Your task to perform on an android device: toggle improve location accuracy Image 0: 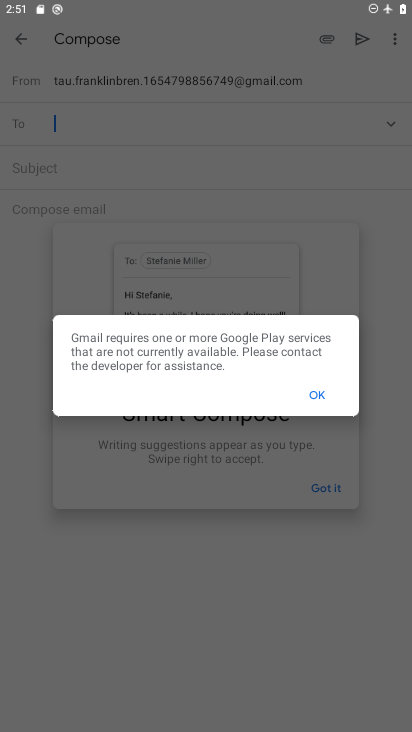
Step 0: press home button
Your task to perform on an android device: toggle improve location accuracy Image 1: 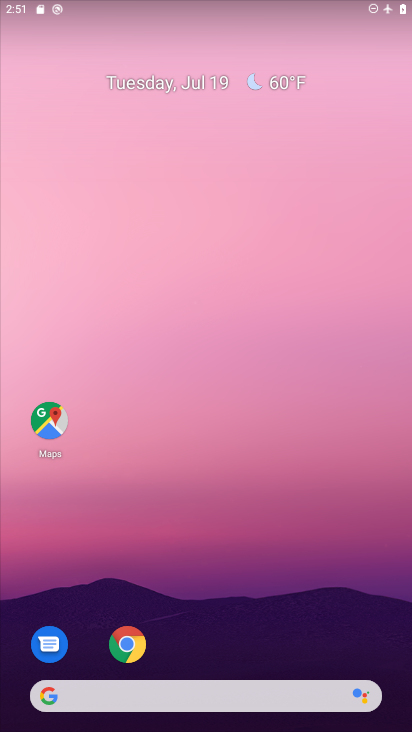
Step 1: drag from (176, 669) to (136, 58)
Your task to perform on an android device: toggle improve location accuracy Image 2: 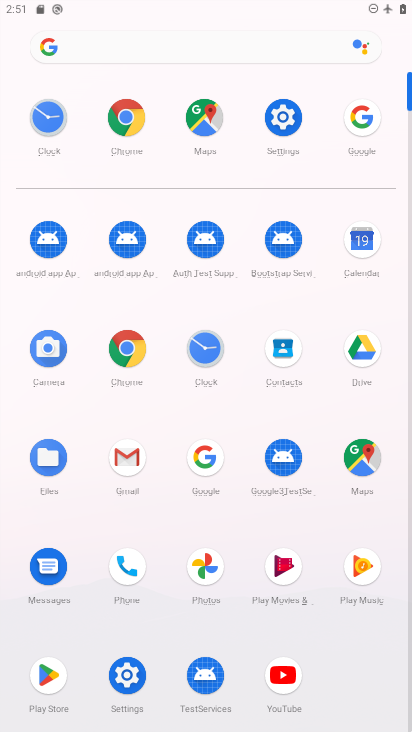
Step 2: click (129, 684)
Your task to perform on an android device: toggle improve location accuracy Image 3: 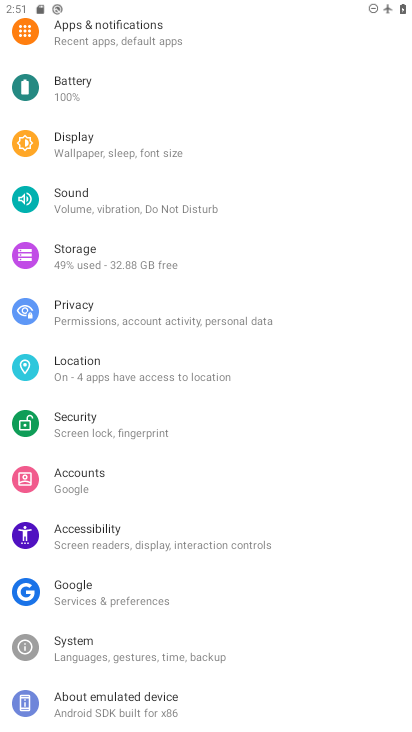
Step 3: click (82, 375)
Your task to perform on an android device: toggle improve location accuracy Image 4: 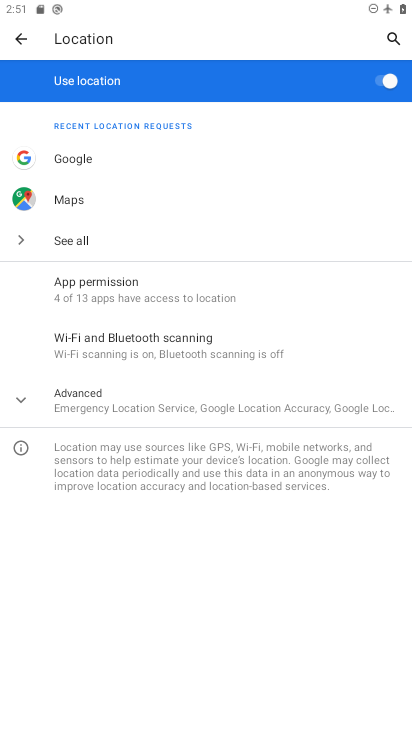
Step 4: click (132, 401)
Your task to perform on an android device: toggle improve location accuracy Image 5: 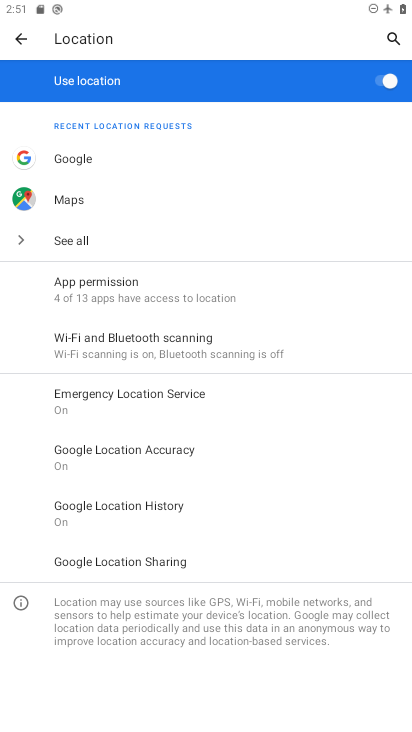
Step 5: click (169, 455)
Your task to perform on an android device: toggle improve location accuracy Image 6: 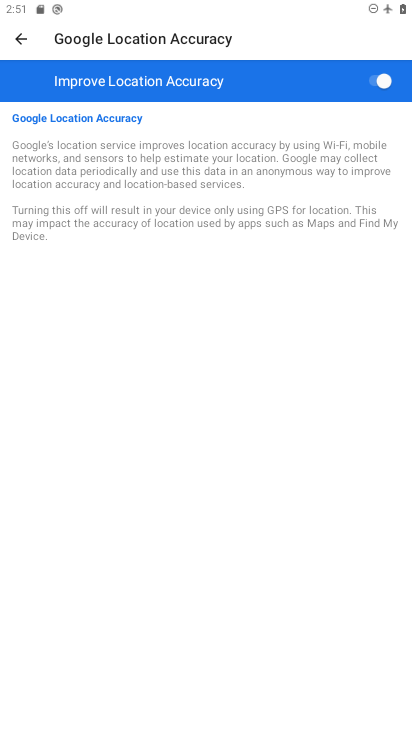
Step 6: click (385, 74)
Your task to perform on an android device: toggle improve location accuracy Image 7: 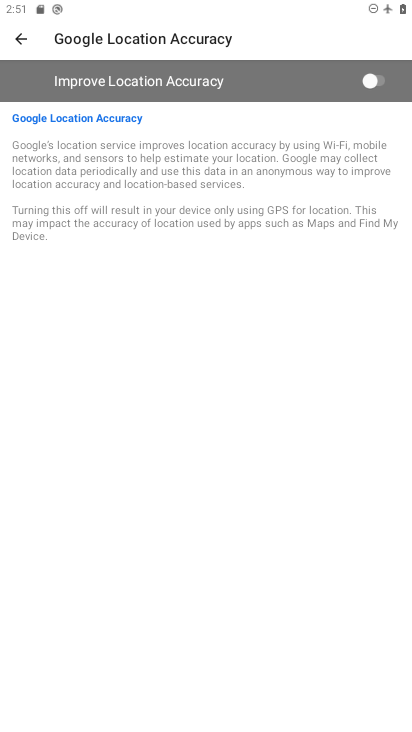
Step 7: task complete